Your task to perform on an android device: turn off data saver in the chrome app Image 0: 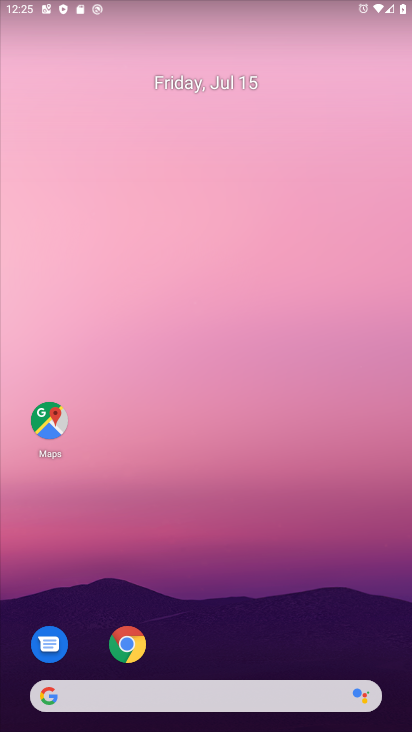
Step 0: drag from (347, 627) to (133, 55)
Your task to perform on an android device: turn off data saver in the chrome app Image 1: 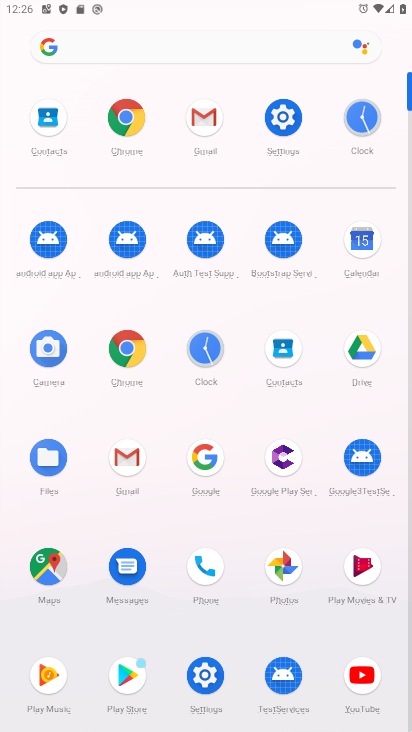
Step 1: click (127, 343)
Your task to perform on an android device: turn off data saver in the chrome app Image 2: 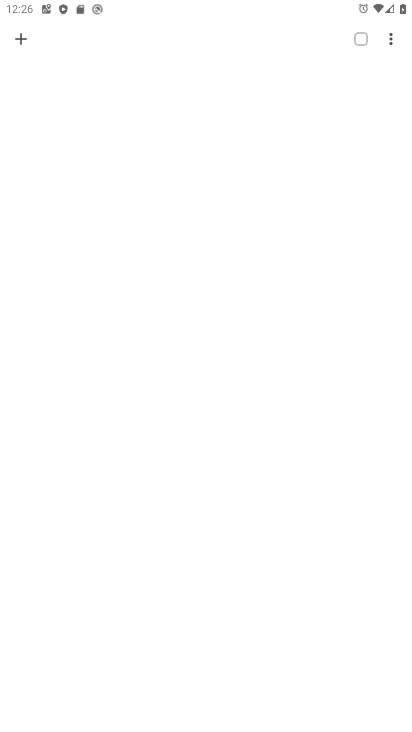
Step 2: click (395, 38)
Your task to perform on an android device: turn off data saver in the chrome app Image 3: 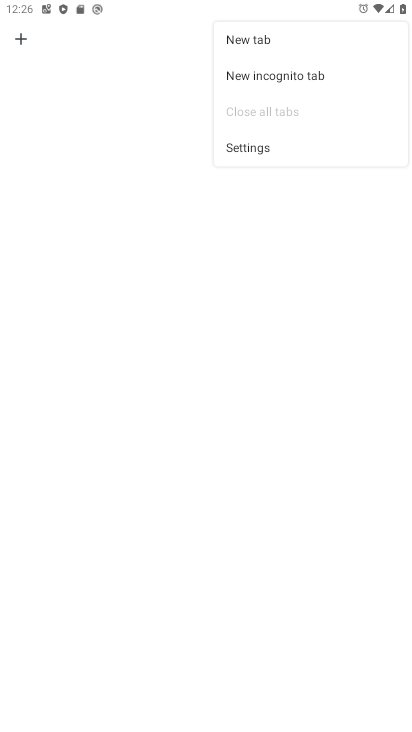
Step 3: click (276, 147)
Your task to perform on an android device: turn off data saver in the chrome app Image 4: 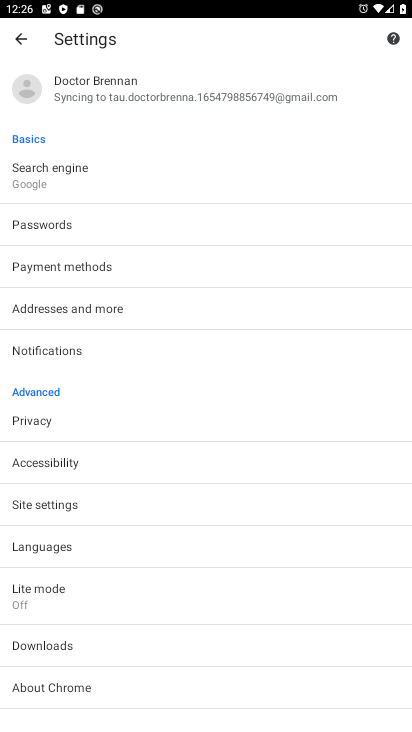
Step 4: click (135, 610)
Your task to perform on an android device: turn off data saver in the chrome app Image 5: 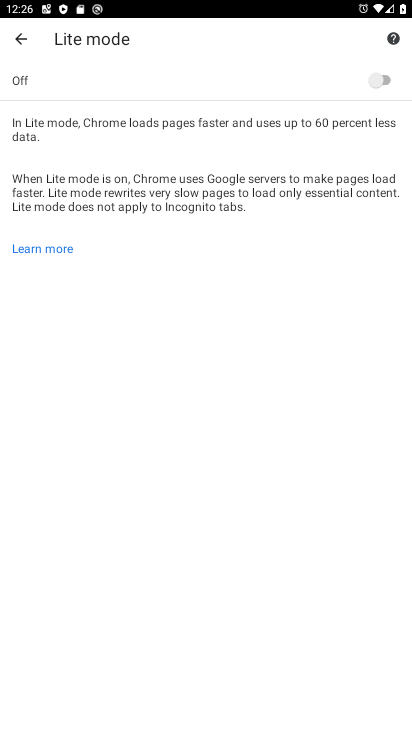
Step 5: click (356, 85)
Your task to perform on an android device: turn off data saver in the chrome app Image 6: 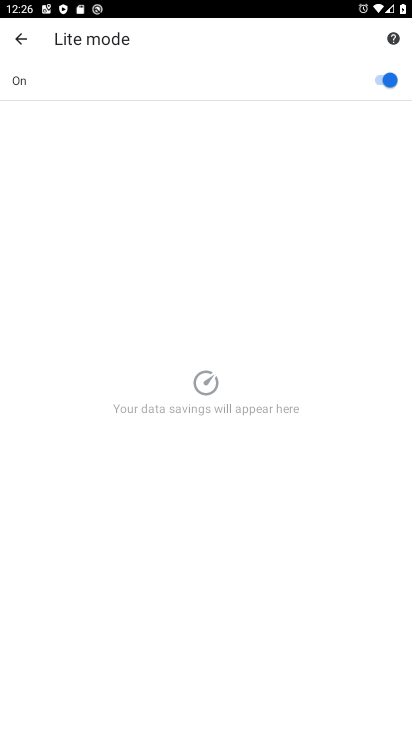
Step 6: click (344, 77)
Your task to perform on an android device: turn off data saver in the chrome app Image 7: 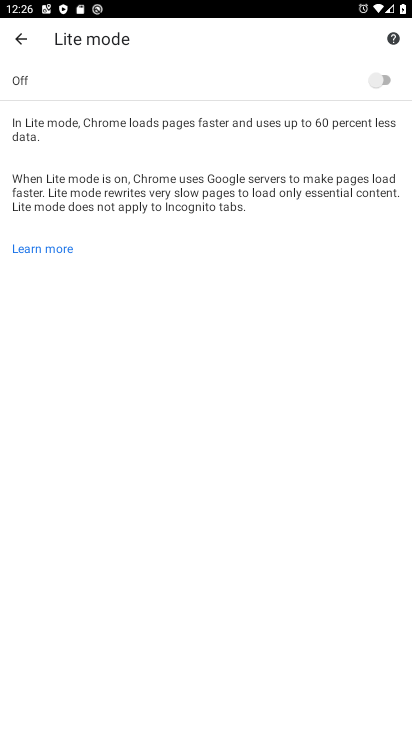
Step 7: task complete